Your task to perform on an android device: change your default location settings in chrome Image 0: 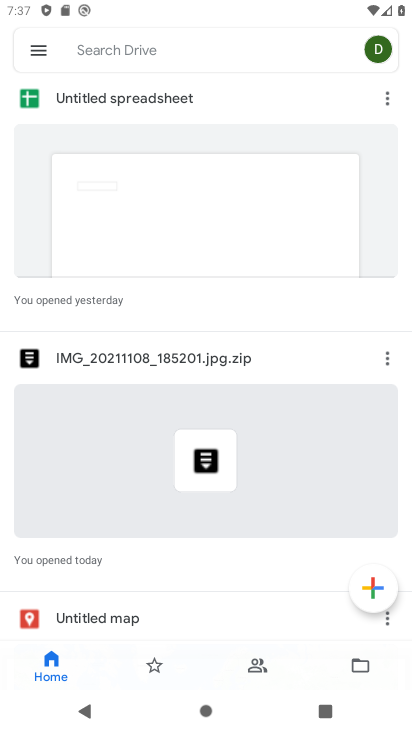
Step 0: press back button
Your task to perform on an android device: change your default location settings in chrome Image 1: 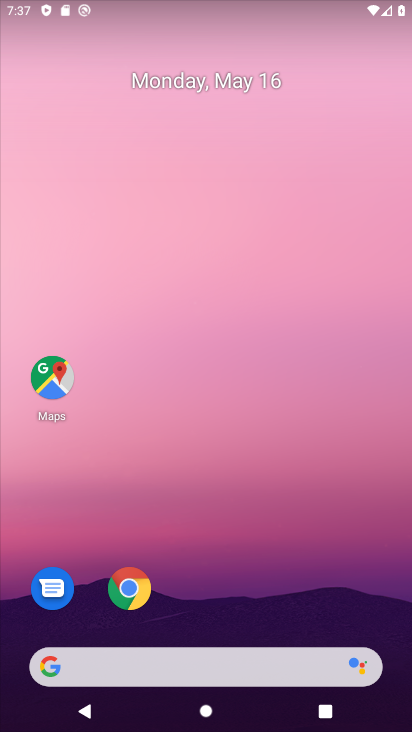
Step 1: drag from (223, 566) to (155, 30)
Your task to perform on an android device: change your default location settings in chrome Image 2: 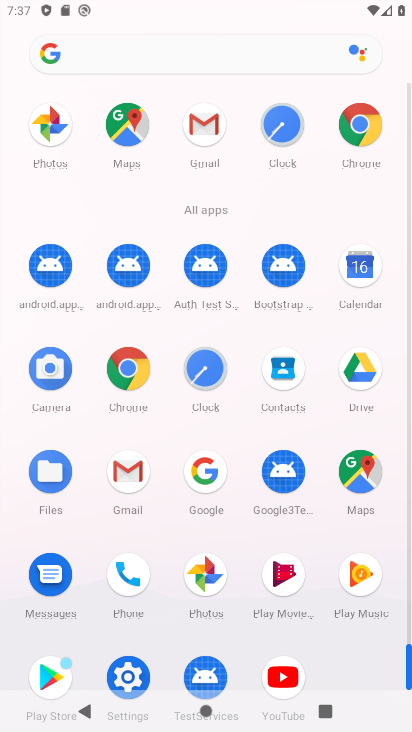
Step 2: click (359, 120)
Your task to perform on an android device: change your default location settings in chrome Image 3: 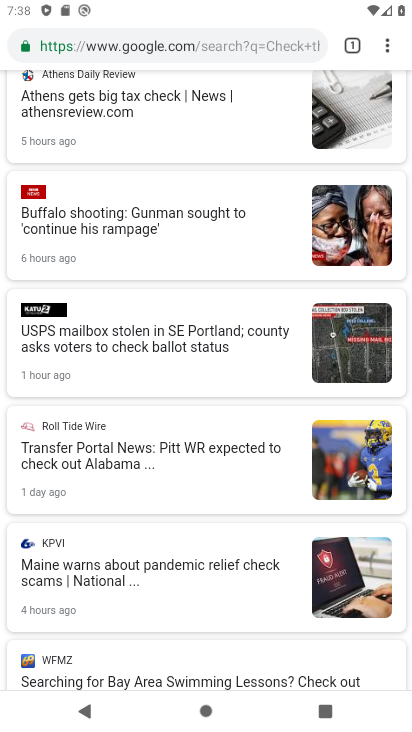
Step 3: drag from (389, 41) to (230, 511)
Your task to perform on an android device: change your default location settings in chrome Image 4: 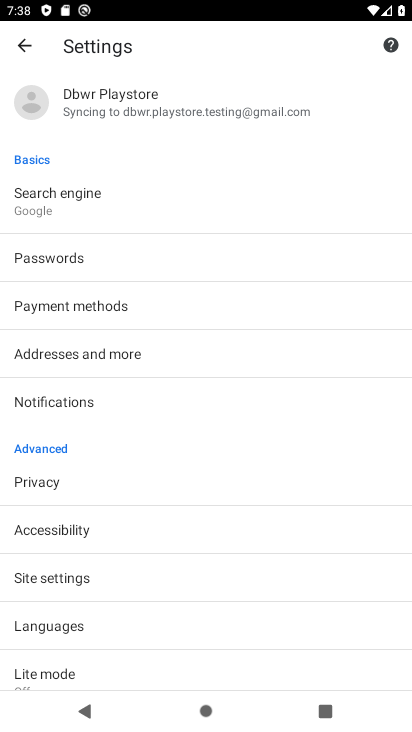
Step 4: click (76, 578)
Your task to perform on an android device: change your default location settings in chrome Image 5: 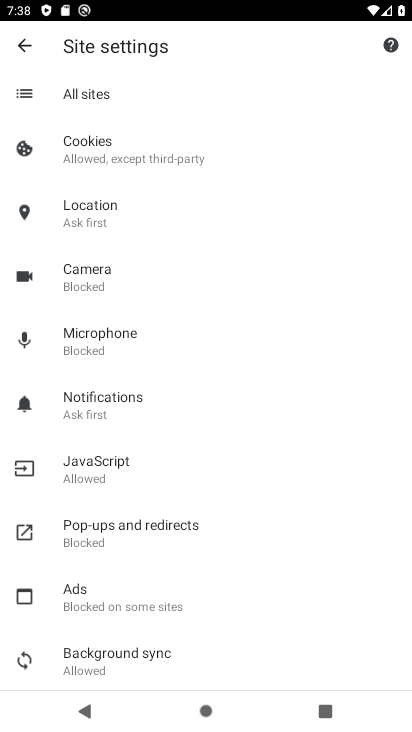
Step 5: drag from (234, 554) to (249, 238)
Your task to perform on an android device: change your default location settings in chrome Image 6: 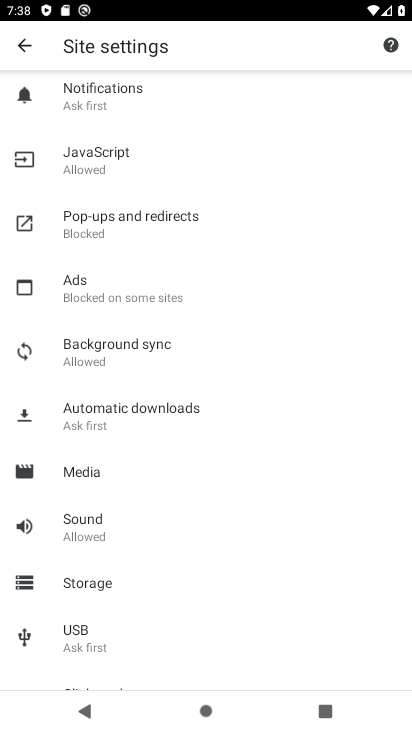
Step 6: drag from (255, 168) to (230, 503)
Your task to perform on an android device: change your default location settings in chrome Image 7: 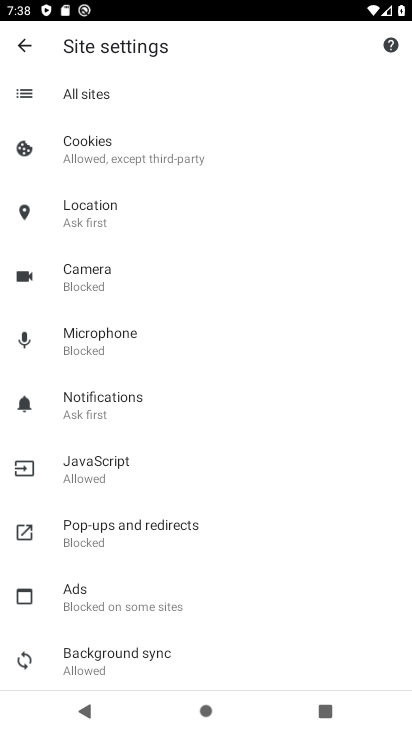
Step 7: click (118, 209)
Your task to perform on an android device: change your default location settings in chrome Image 8: 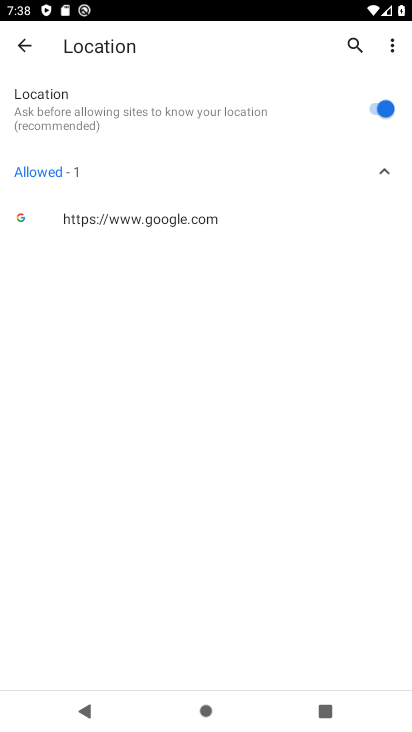
Step 8: click (364, 102)
Your task to perform on an android device: change your default location settings in chrome Image 9: 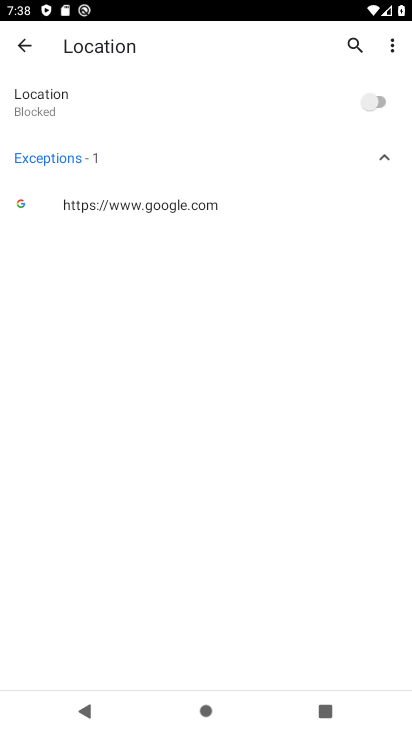
Step 9: task complete